Your task to perform on an android device: Open calendar and show me the first week of next month Image 0: 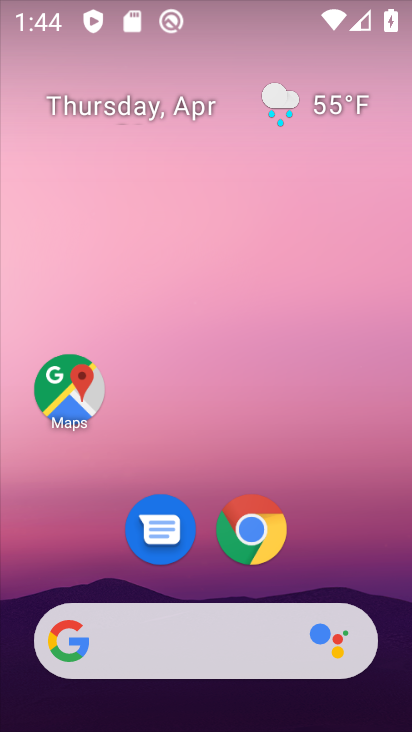
Step 0: drag from (319, 537) to (303, 195)
Your task to perform on an android device: Open calendar and show me the first week of next month Image 1: 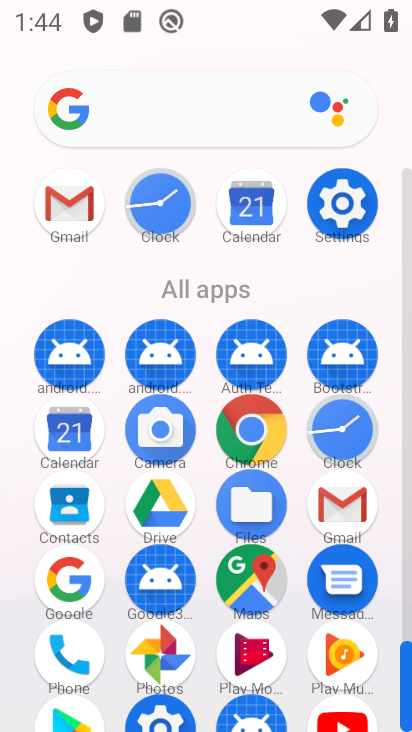
Step 1: click (90, 437)
Your task to perform on an android device: Open calendar and show me the first week of next month Image 2: 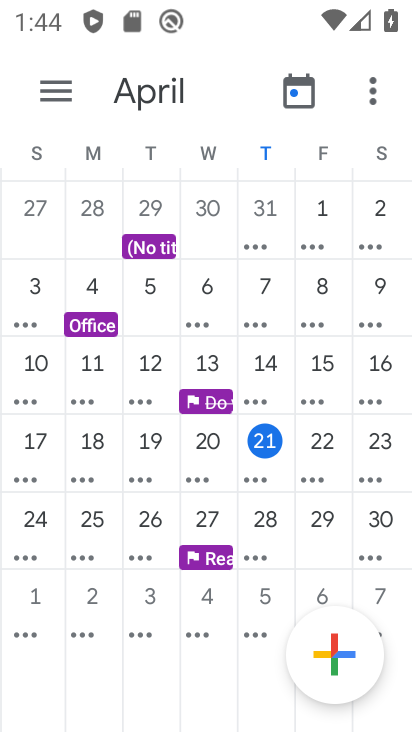
Step 2: click (166, 97)
Your task to perform on an android device: Open calendar and show me the first week of next month Image 3: 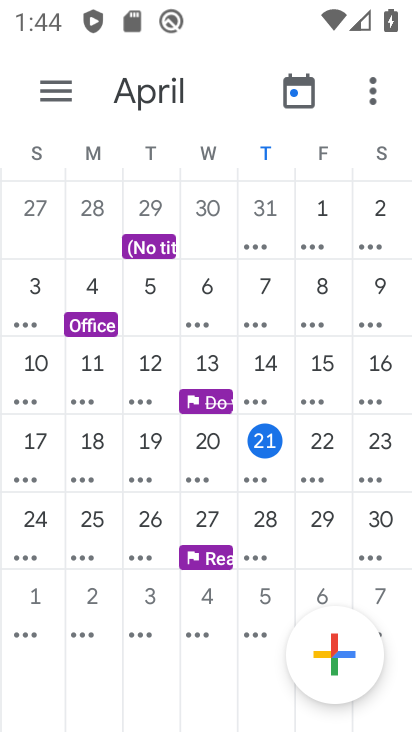
Step 3: click (65, 99)
Your task to perform on an android device: Open calendar and show me the first week of next month Image 4: 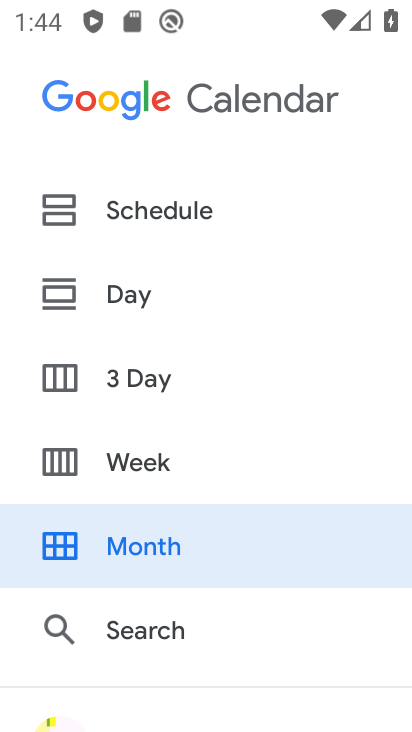
Step 4: click (144, 459)
Your task to perform on an android device: Open calendar and show me the first week of next month Image 5: 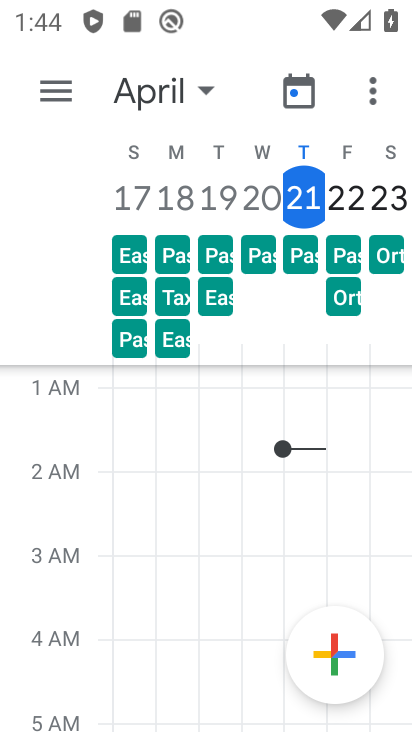
Step 5: click (179, 101)
Your task to perform on an android device: Open calendar and show me the first week of next month Image 6: 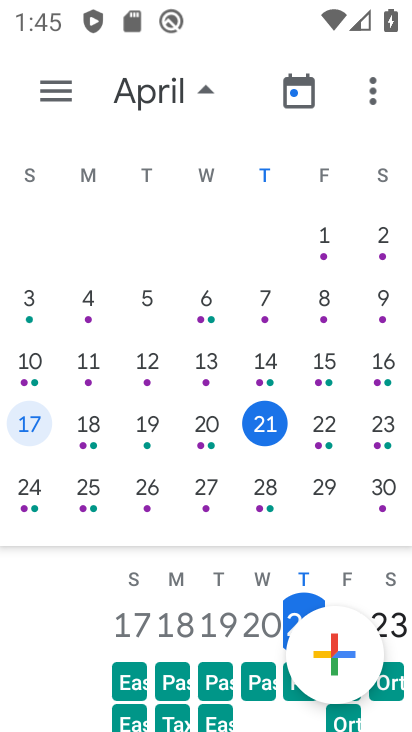
Step 6: drag from (296, 375) to (0, 342)
Your task to perform on an android device: Open calendar and show me the first week of next month Image 7: 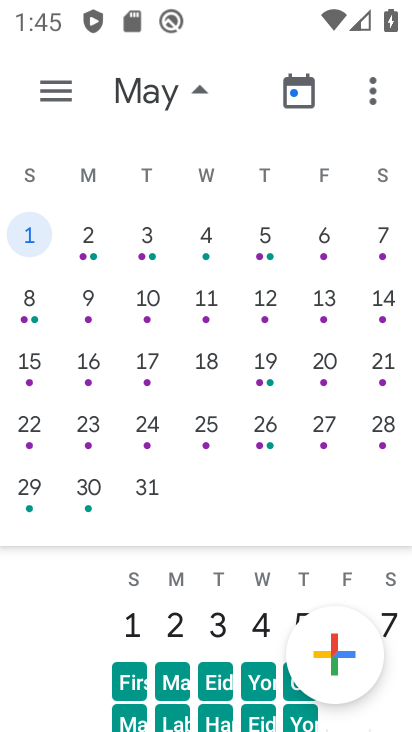
Step 7: click (34, 241)
Your task to perform on an android device: Open calendar and show me the first week of next month Image 8: 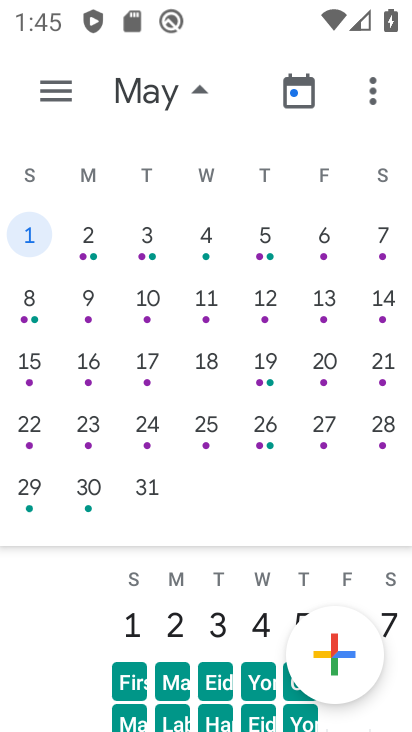
Step 8: click (35, 237)
Your task to perform on an android device: Open calendar and show me the first week of next month Image 9: 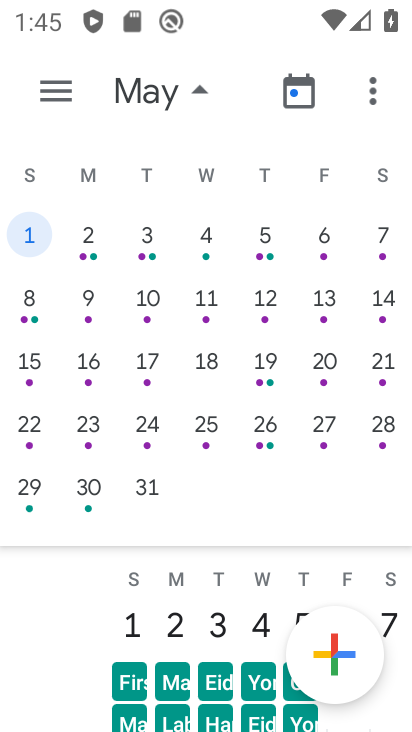
Step 9: click (36, 236)
Your task to perform on an android device: Open calendar and show me the first week of next month Image 10: 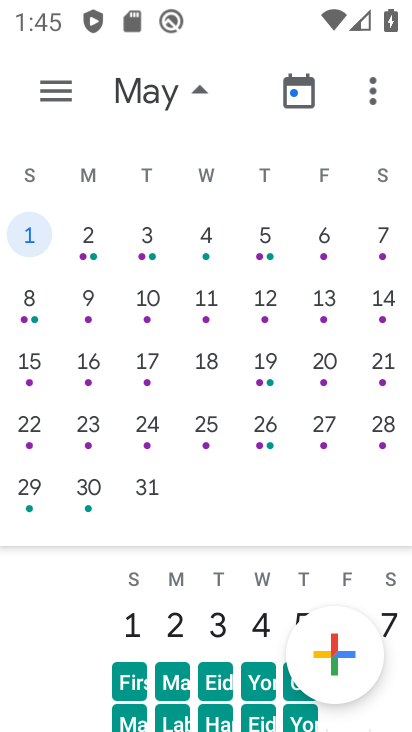
Step 10: click (36, 236)
Your task to perform on an android device: Open calendar and show me the first week of next month Image 11: 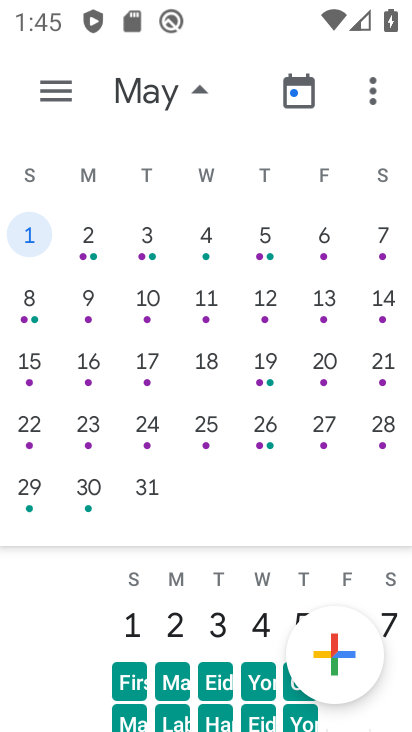
Step 11: click (184, 102)
Your task to perform on an android device: Open calendar and show me the first week of next month Image 12: 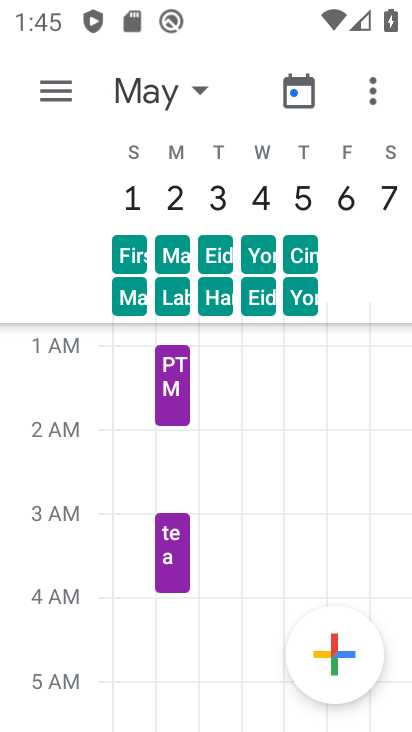
Step 12: task complete